Your task to perform on an android device: set the stopwatch Image 0: 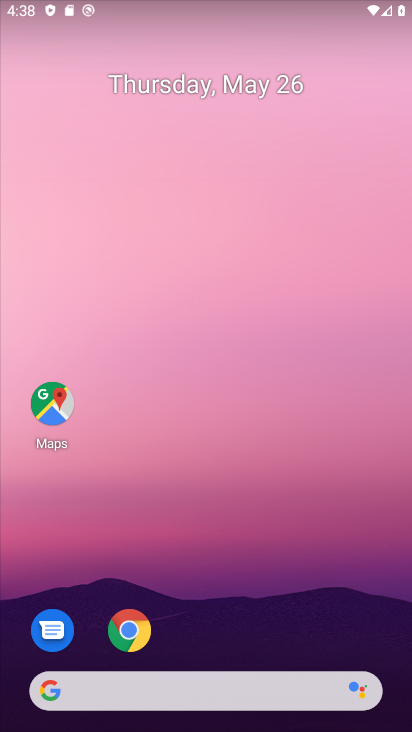
Step 0: drag from (236, 673) to (251, 104)
Your task to perform on an android device: set the stopwatch Image 1: 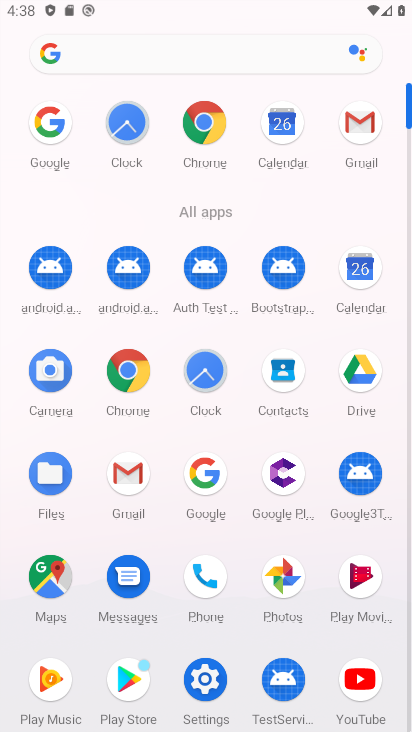
Step 1: click (131, 130)
Your task to perform on an android device: set the stopwatch Image 2: 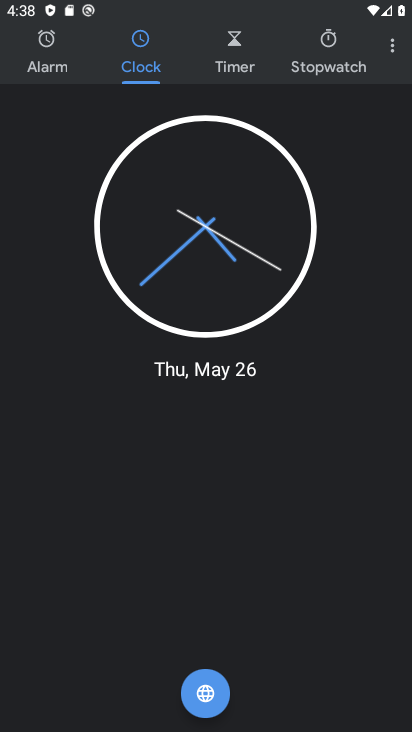
Step 2: click (337, 62)
Your task to perform on an android device: set the stopwatch Image 3: 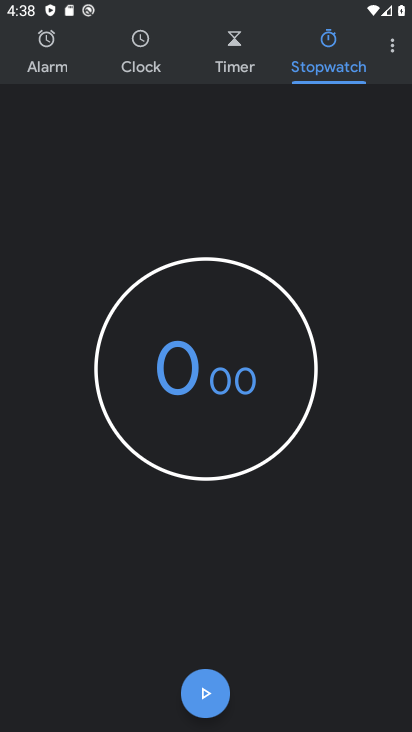
Step 3: click (213, 382)
Your task to perform on an android device: set the stopwatch Image 4: 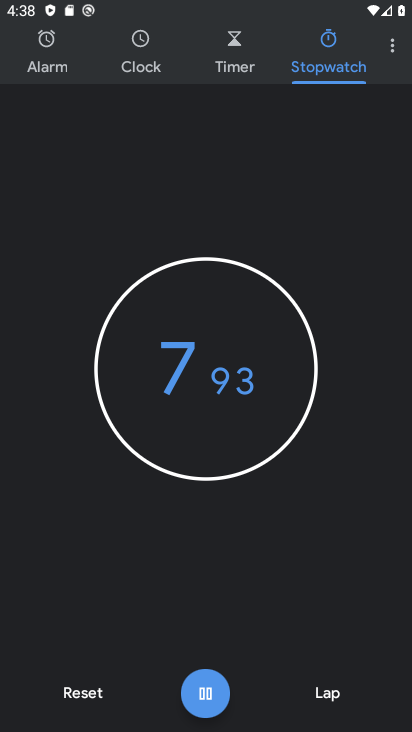
Step 4: click (205, 712)
Your task to perform on an android device: set the stopwatch Image 5: 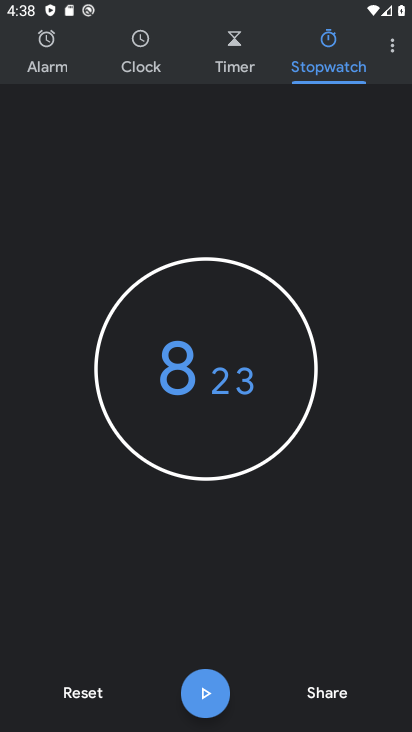
Step 5: task complete